Your task to perform on an android device: Go to accessibility settings Image 0: 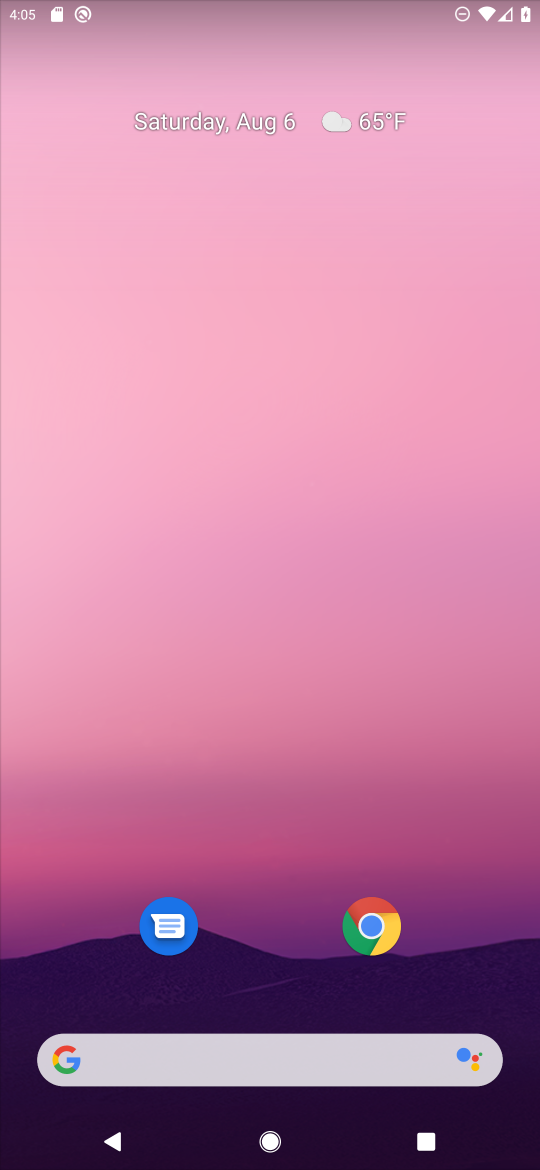
Step 0: drag from (287, 939) to (264, 288)
Your task to perform on an android device: Go to accessibility settings Image 1: 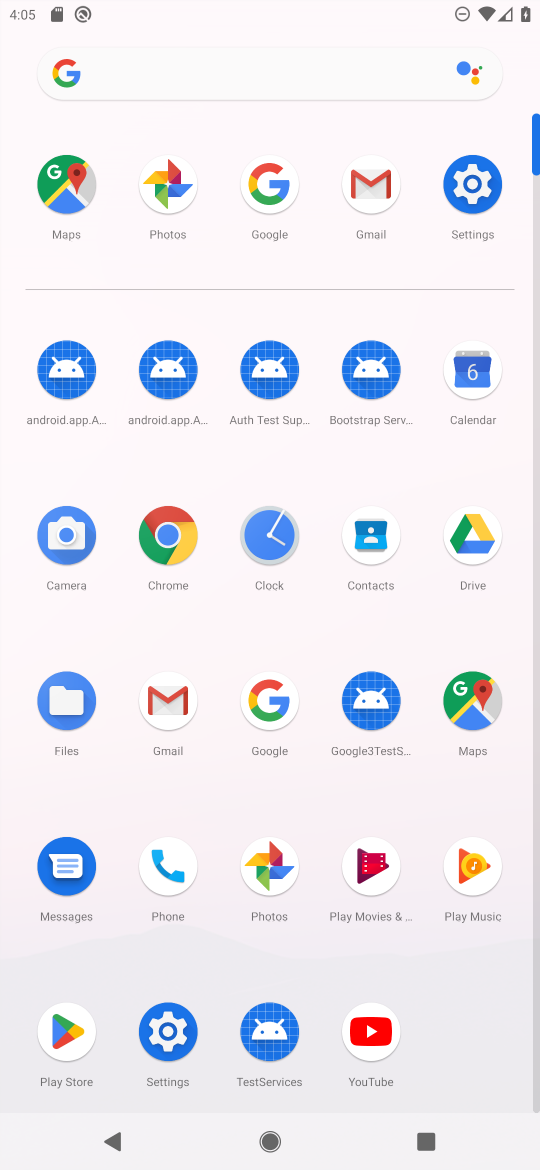
Step 1: click (463, 194)
Your task to perform on an android device: Go to accessibility settings Image 2: 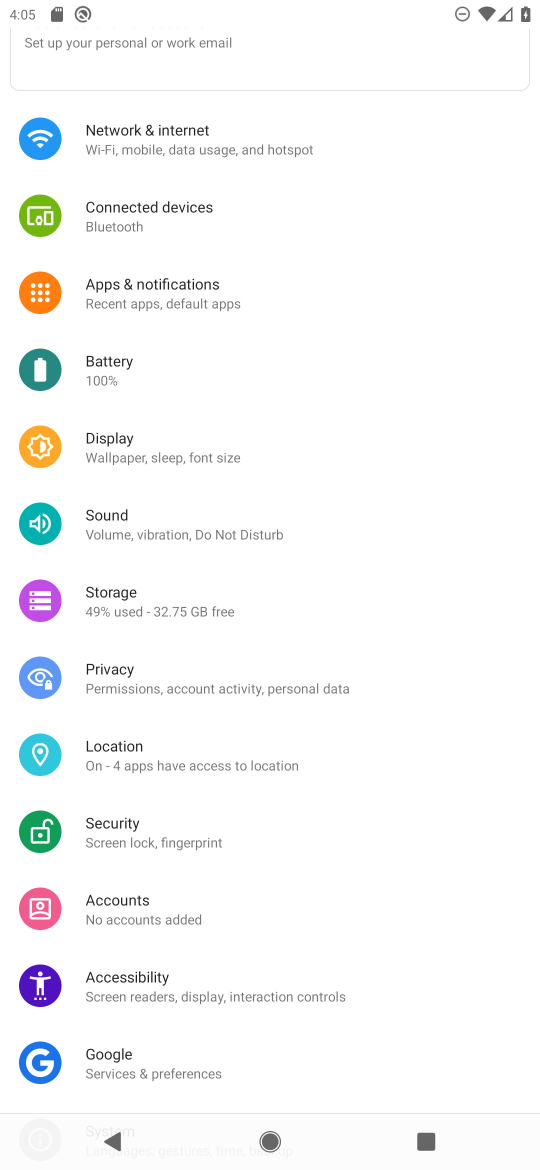
Step 2: drag from (229, 867) to (236, 348)
Your task to perform on an android device: Go to accessibility settings Image 3: 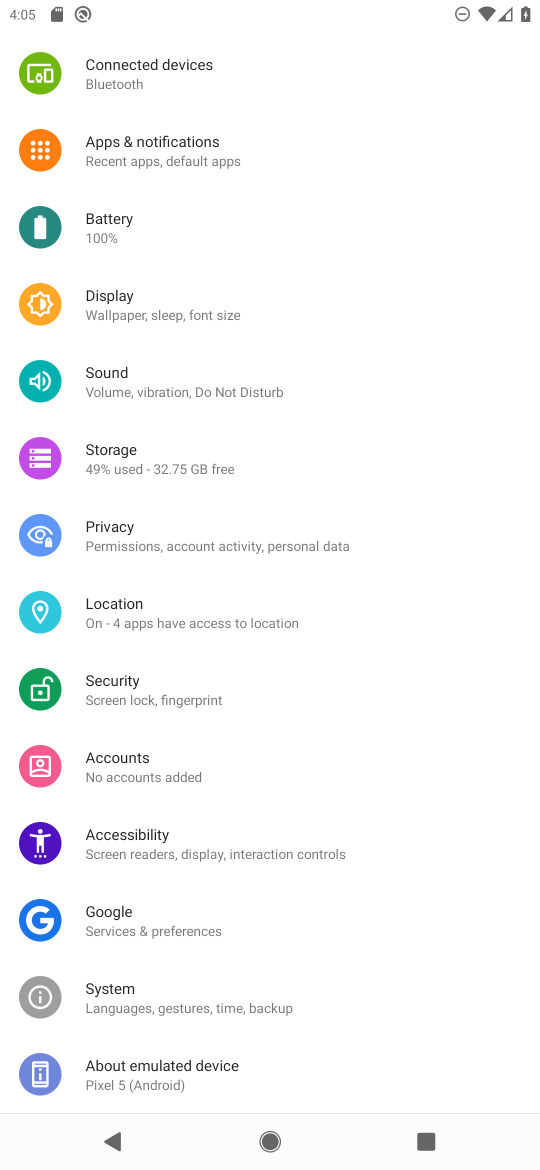
Step 3: click (211, 826)
Your task to perform on an android device: Go to accessibility settings Image 4: 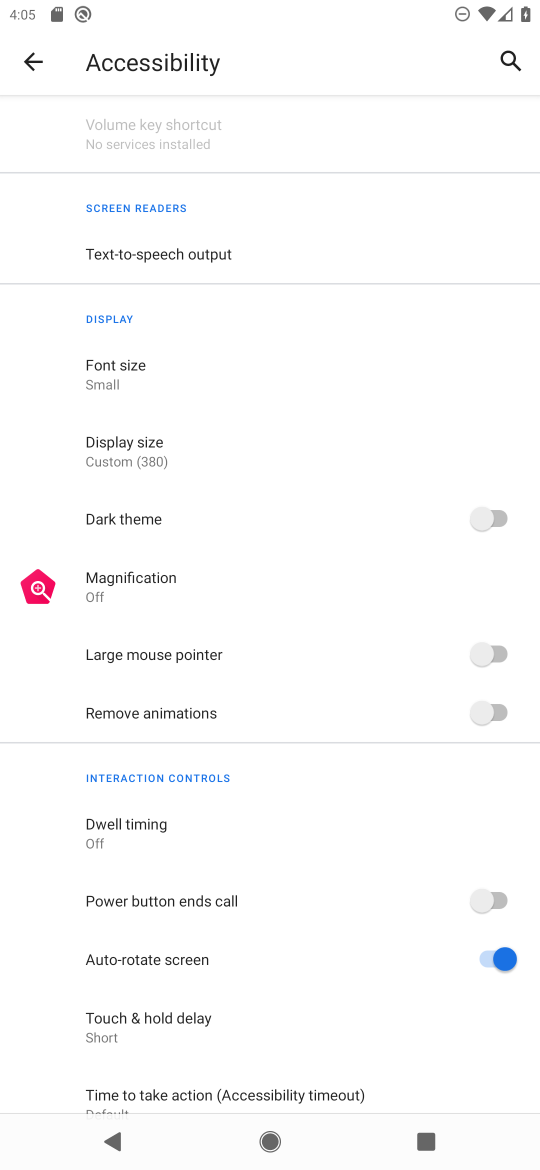
Step 4: task complete